Your task to perform on an android device: remove spam from my inbox in the gmail app Image 0: 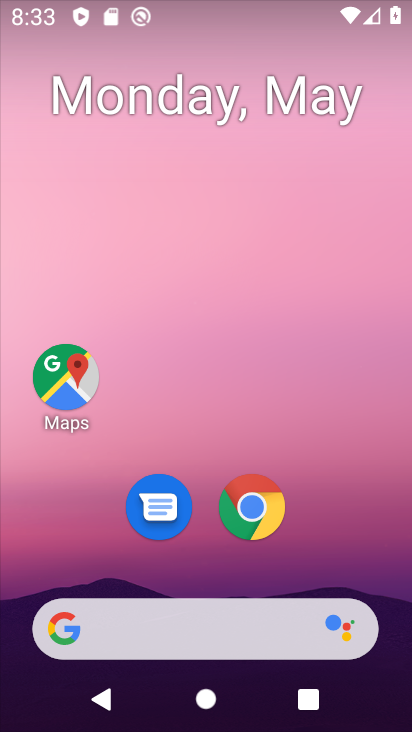
Step 0: drag from (207, 576) to (254, 0)
Your task to perform on an android device: remove spam from my inbox in the gmail app Image 1: 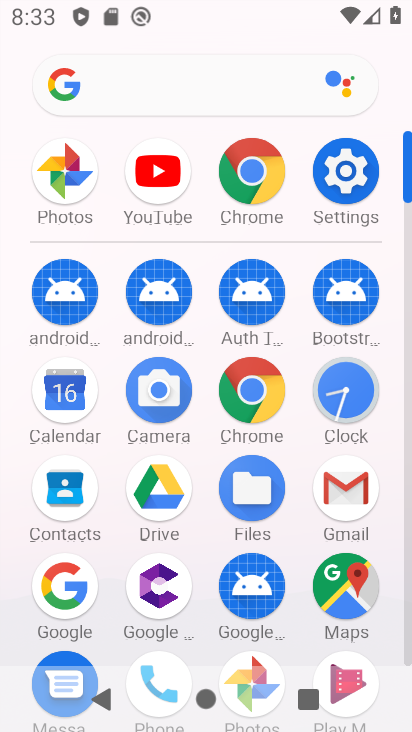
Step 1: click (333, 487)
Your task to perform on an android device: remove spam from my inbox in the gmail app Image 2: 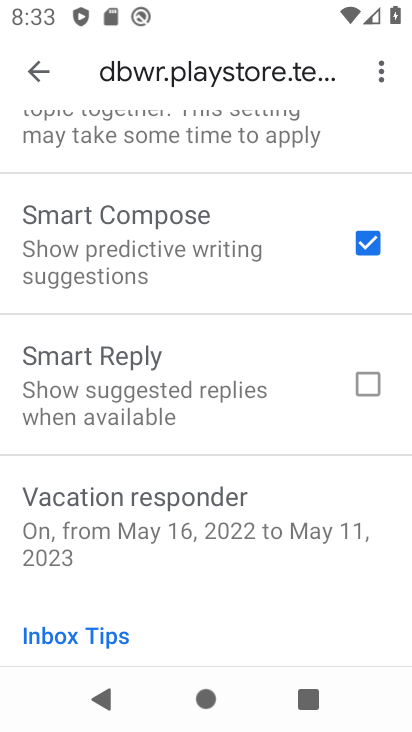
Step 2: drag from (183, 267) to (195, 679)
Your task to perform on an android device: remove spam from my inbox in the gmail app Image 3: 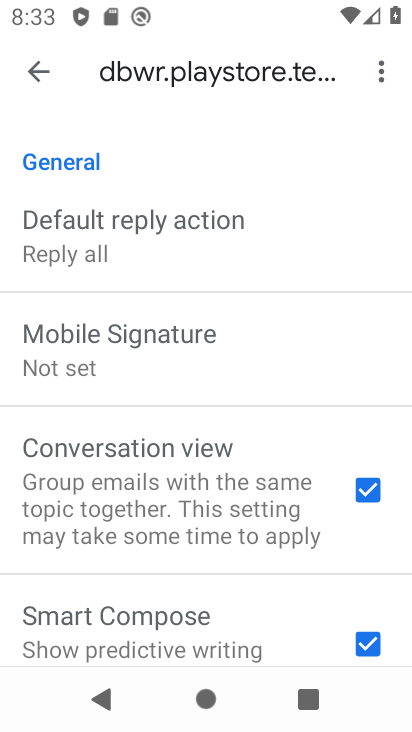
Step 3: click (41, 67)
Your task to perform on an android device: remove spam from my inbox in the gmail app Image 4: 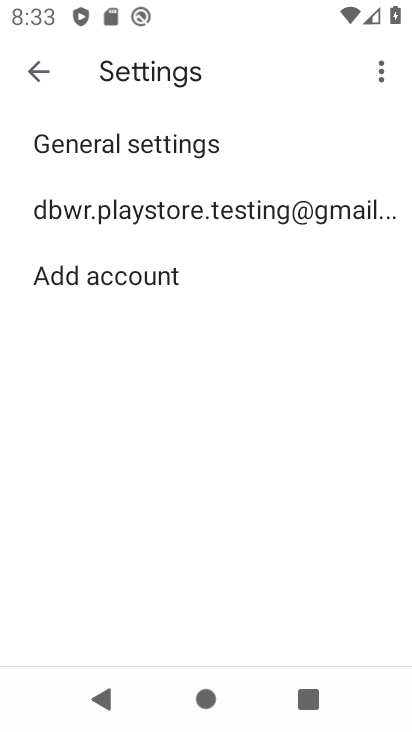
Step 4: click (40, 67)
Your task to perform on an android device: remove spam from my inbox in the gmail app Image 5: 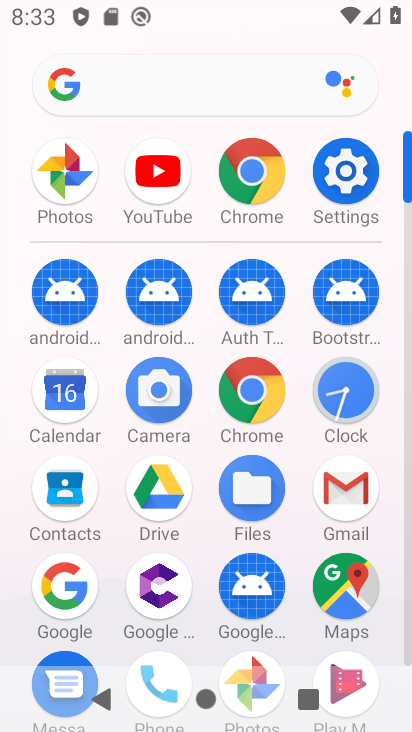
Step 5: click (358, 492)
Your task to perform on an android device: remove spam from my inbox in the gmail app Image 6: 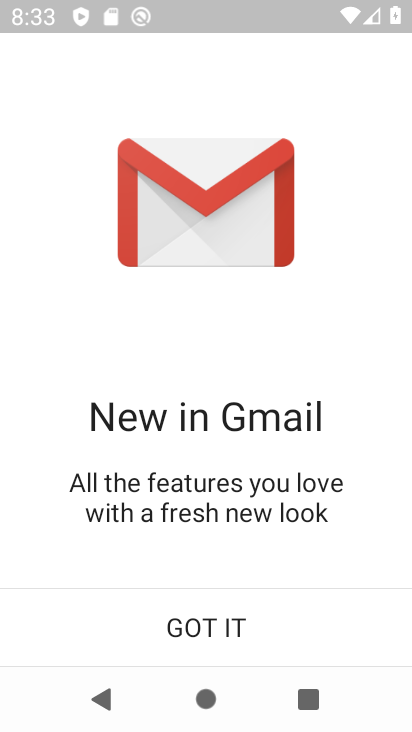
Step 6: click (232, 629)
Your task to perform on an android device: remove spam from my inbox in the gmail app Image 7: 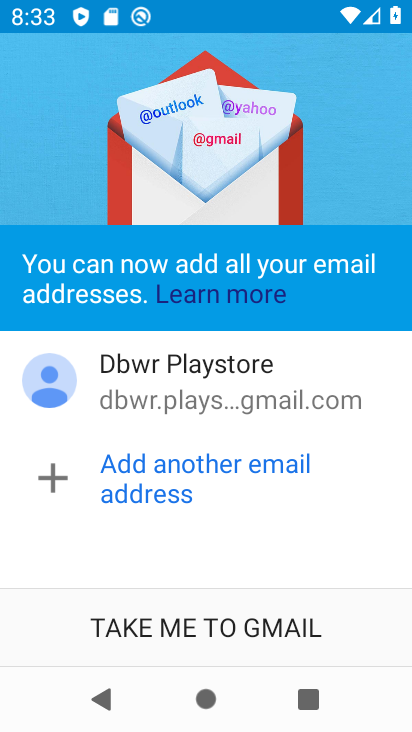
Step 7: click (232, 629)
Your task to perform on an android device: remove spam from my inbox in the gmail app Image 8: 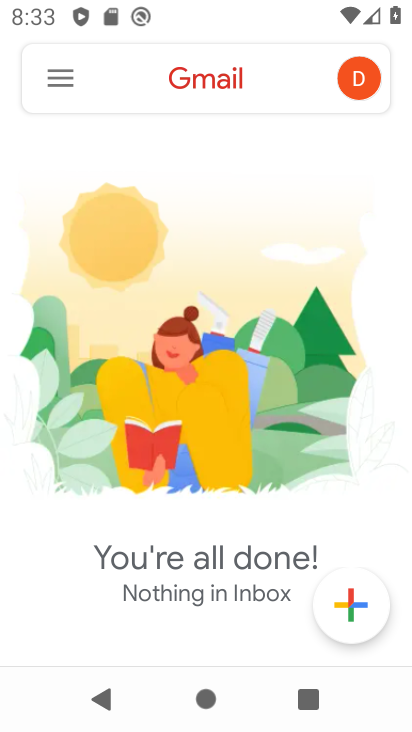
Step 8: click (63, 81)
Your task to perform on an android device: remove spam from my inbox in the gmail app Image 9: 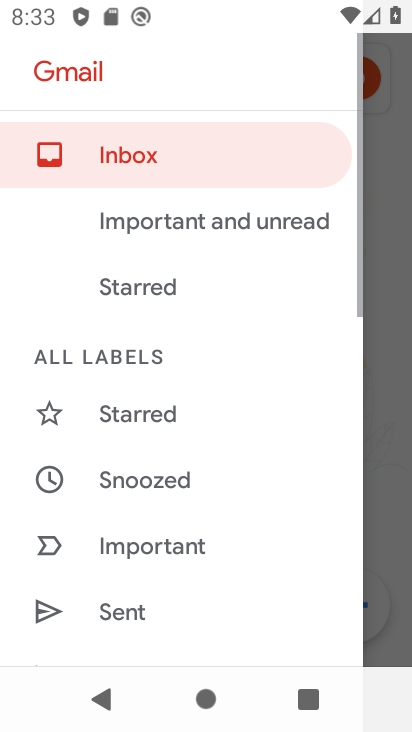
Step 9: drag from (152, 590) to (244, 136)
Your task to perform on an android device: remove spam from my inbox in the gmail app Image 10: 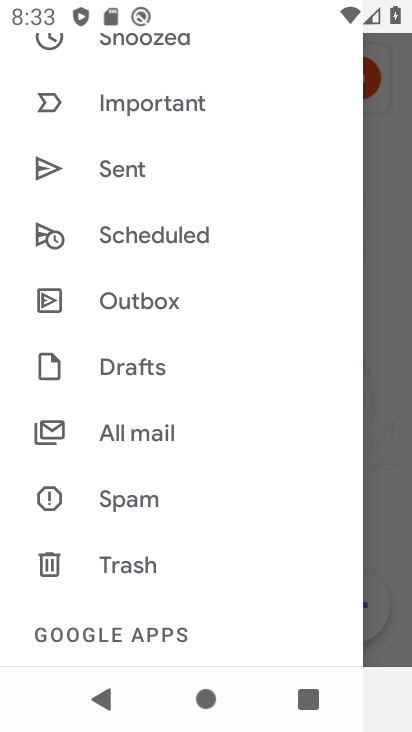
Step 10: drag from (176, 534) to (237, 55)
Your task to perform on an android device: remove spam from my inbox in the gmail app Image 11: 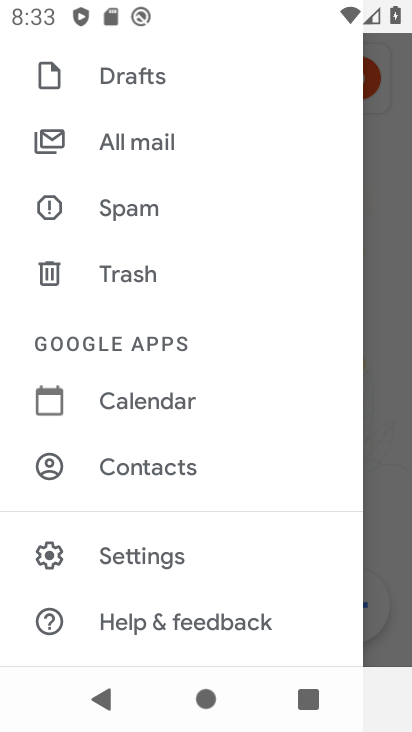
Step 11: click (153, 542)
Your task to perform on an android device: remove spam from my inbox in the gmail app Image 12: 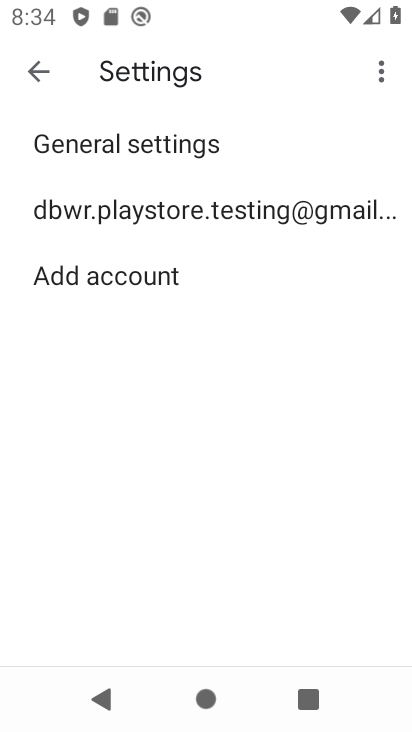
Step 12: click (34, 70)
Your task to perform on an android device: remove spam from my inbox in the gmail app Image 13: 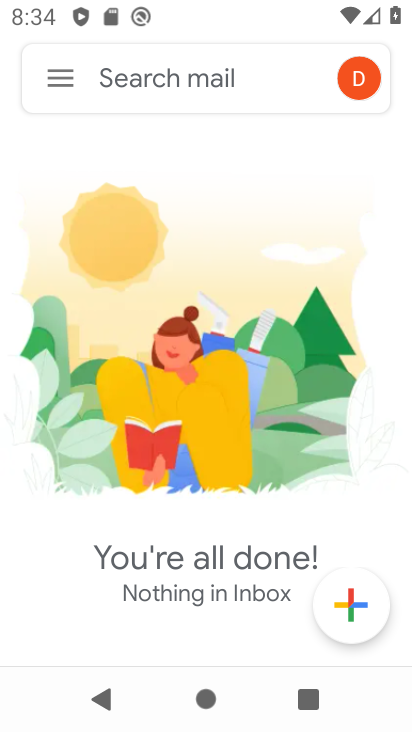
Step 13: click (72, 83)
Your task to perform on an android device: remove spam from my inbox in the gmail app Image 14: 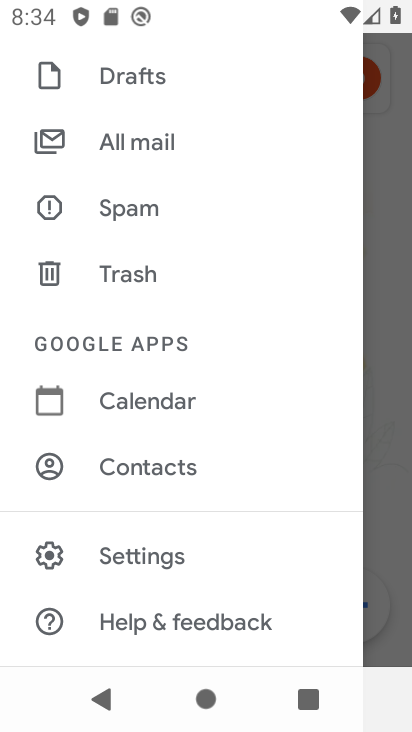
Step 14: click (141, 202)
Your task to perform on an android device: remove spam from my inbox in the gmail app Image 15: 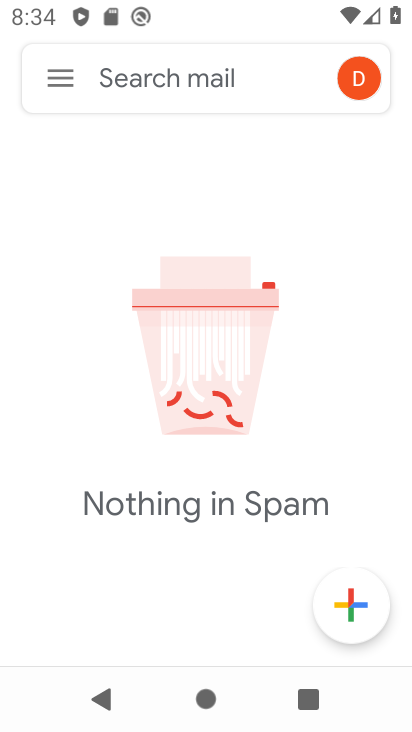
Step 15: task complete